Your task to perform on an android device: Open the Play Movies app and select the watchlist tab. Image 0: 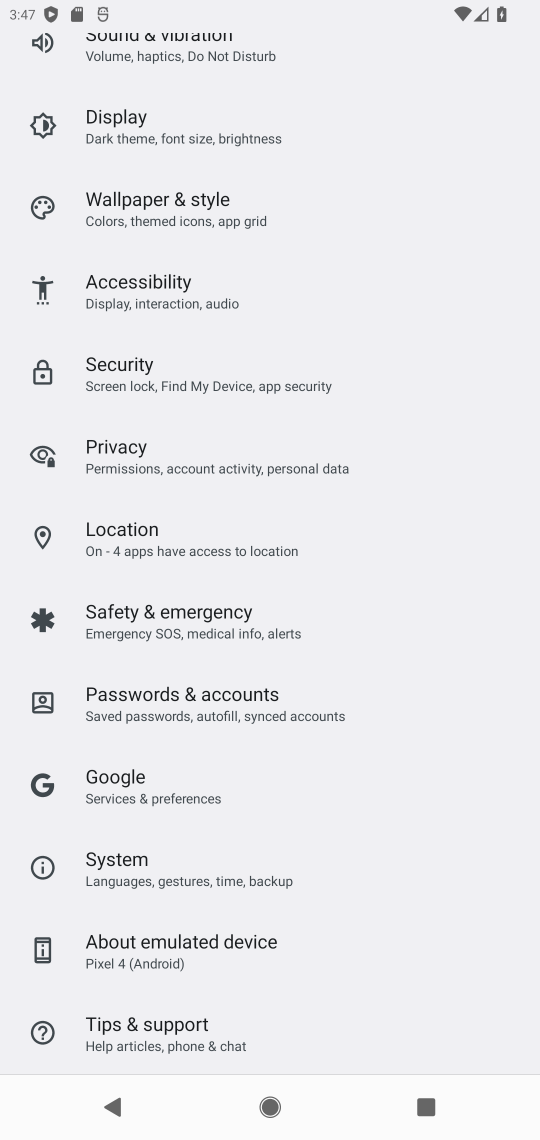
Step 0: press home button
Your task to perform on an android device: Open the Play Movies app and select the watchlist tab. Image 1: 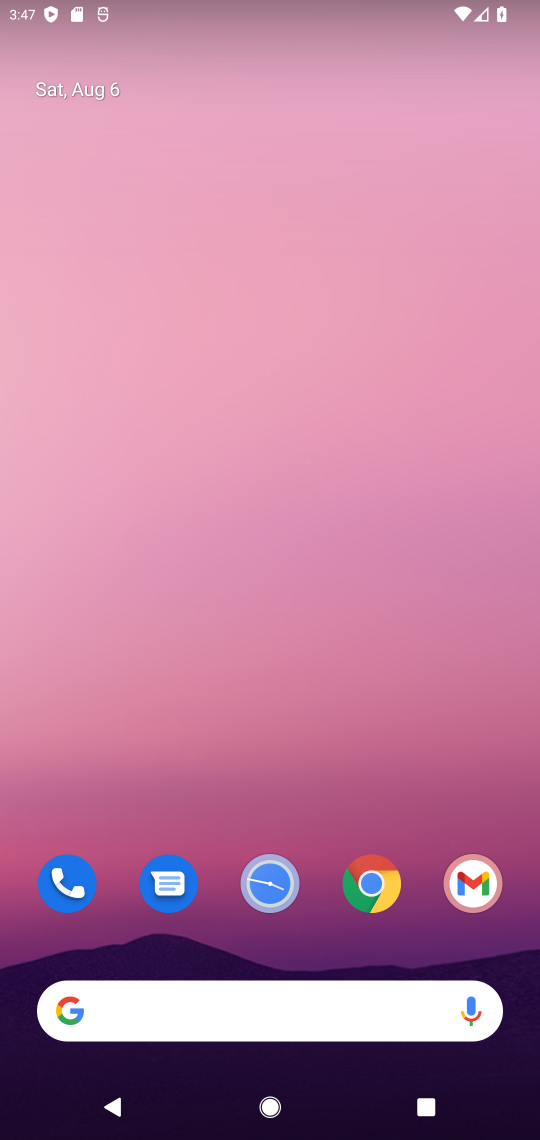
Step 1: task complete